Your task to perform on an android device: find snoozed emails in the gmail app Image 0: 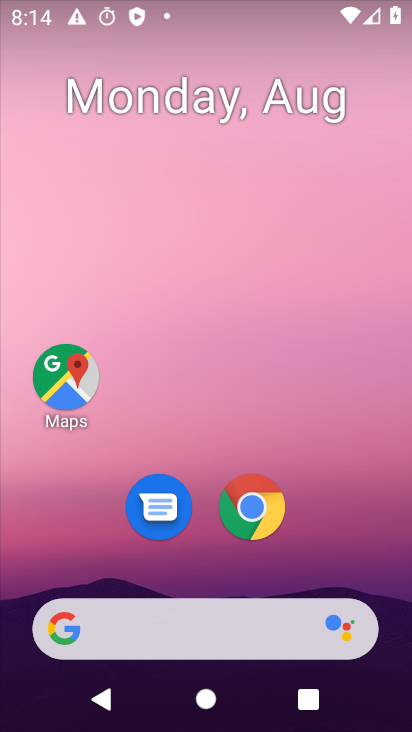
Step 0: drag from (240, 501) to (325, 69)
Your task to perform on an android device: find snoozed emails in the gmail app Image 1: 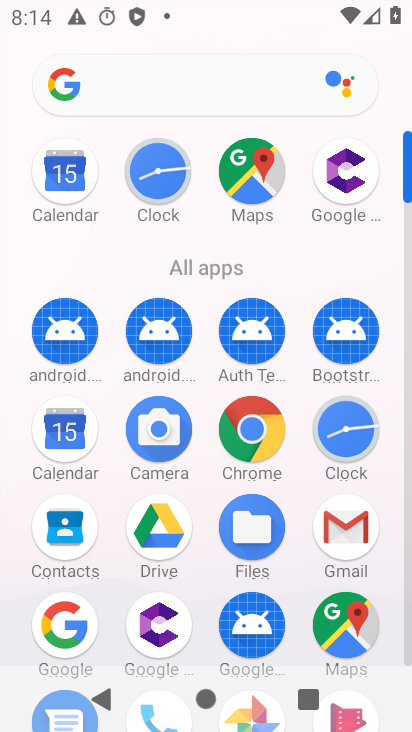
Step 1: click (349, 528)
Your task to perform on an android device: find snoozed emails in the gmail app Image 2: 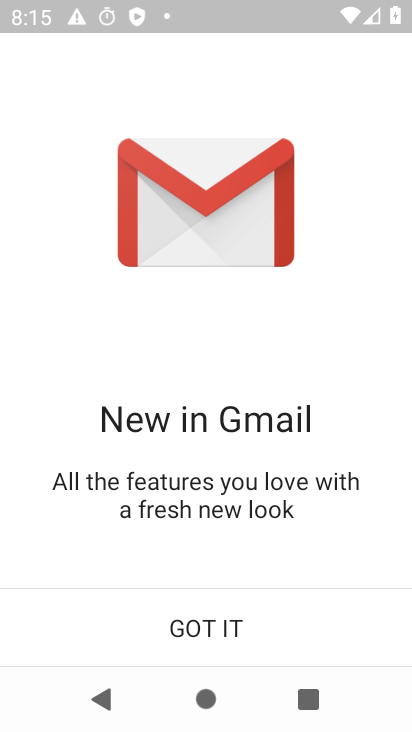
Step 2: click (205, 636)
Your task to perform on an android device: find snoozed emails in the gmail app Image 3: 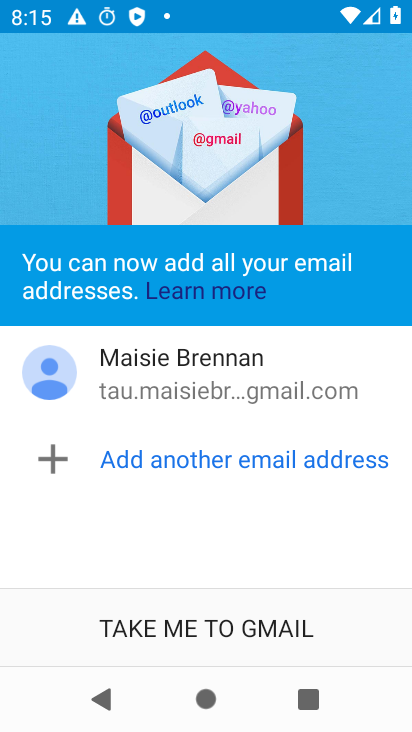
Step 3: click (199, 628)
Your task to perform on an android device: find snoozed emails in the gmail app Image 4: 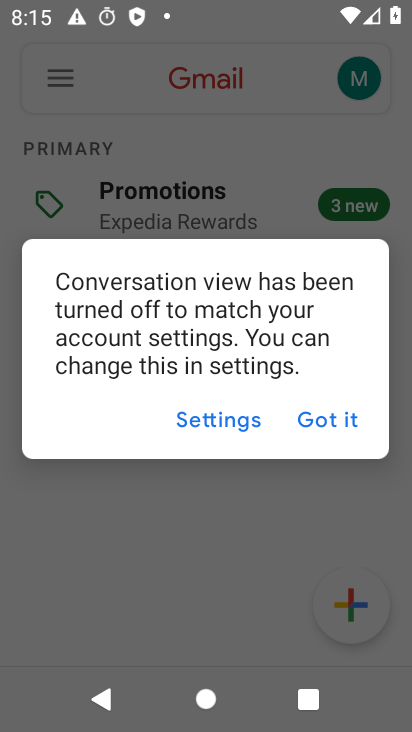
Step 4: click (325, 420)
Your task to perform on an android device: find snoozed emails in the gmail app Image 5: 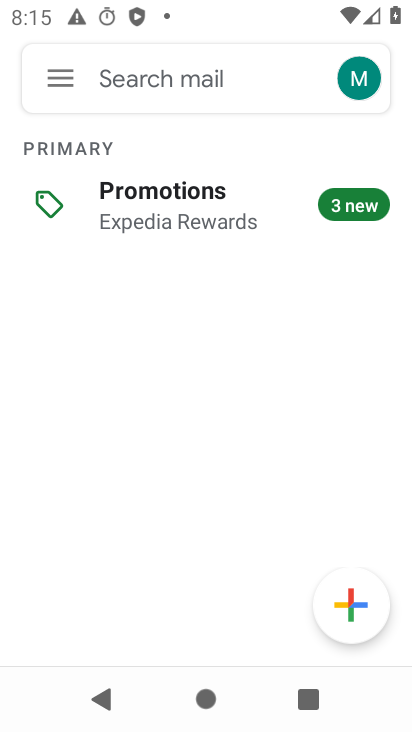
Step 5: click (57, 78)
Your task to perform on an android device: find snoozed emails in the gmail app Image 6: 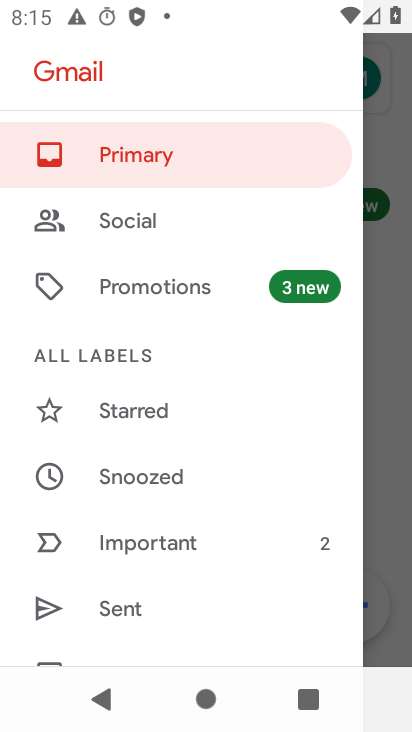
Step 6: click (171, 471)
Your task to perform on an android device: find snoozed emails in the gmail app Image 7: 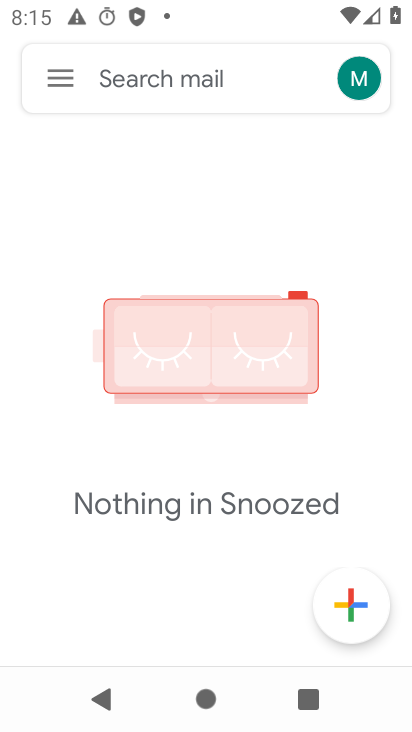
Step 7: task complete